Your task to perform on an android device: set the stopwatch Image 0: 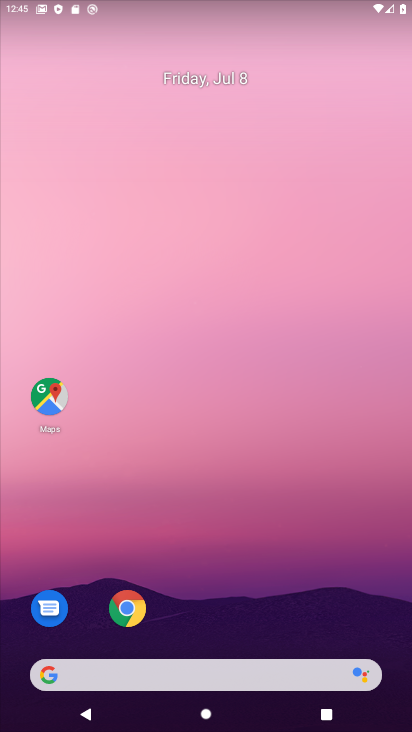
Step 0: drag from (384, 618) to (371, 122)
Your task to perform on an android device: set the stopwatch Image 1: 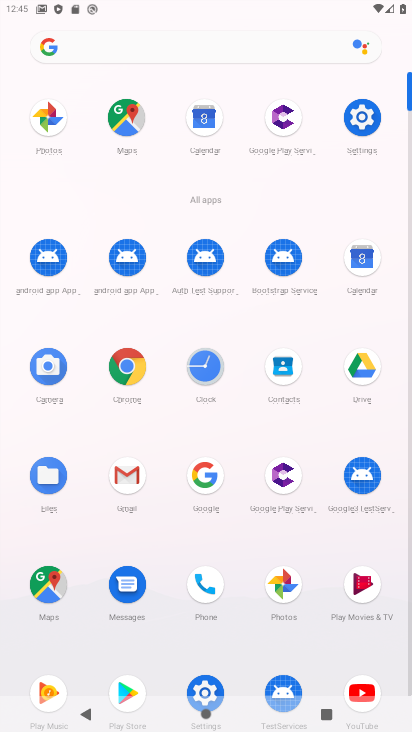
Step 1: click (201, 365)
Your task to perform on an android device: set the stopwatch Image 2: 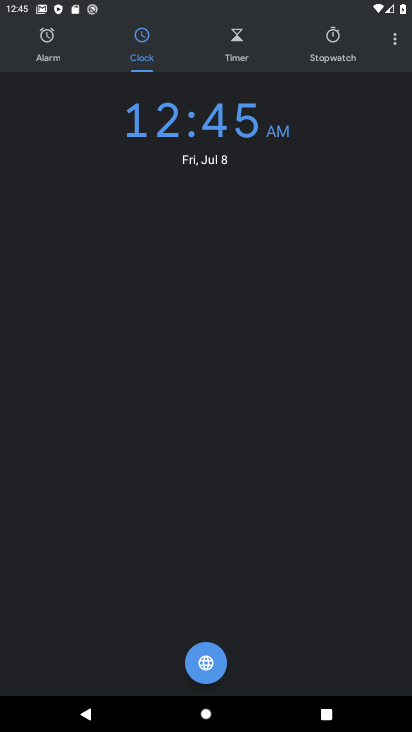
Step 2: click (332, 36)
Your task to perform on an android device: set the stopwatch Image 3: 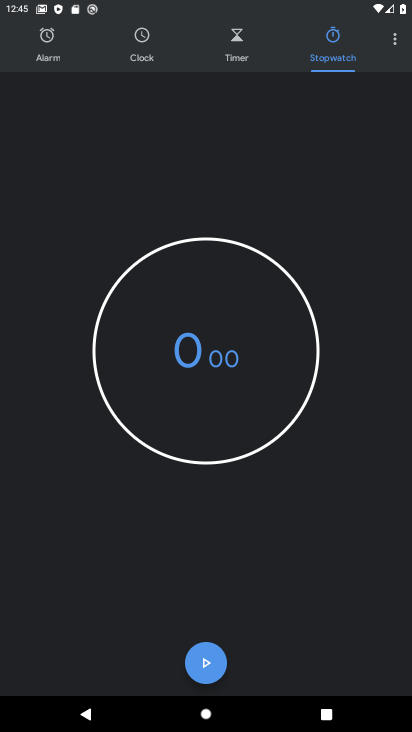
Step 3: task complete